Your task to perform on an android device: check the backup settings in the google photos Image 0: 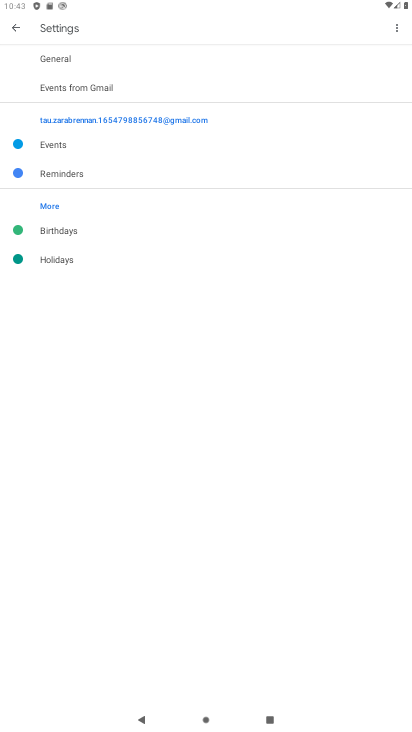
Step 0: press home button
Your task to perform on an android device: check the backup settings in the google photos Image 1: 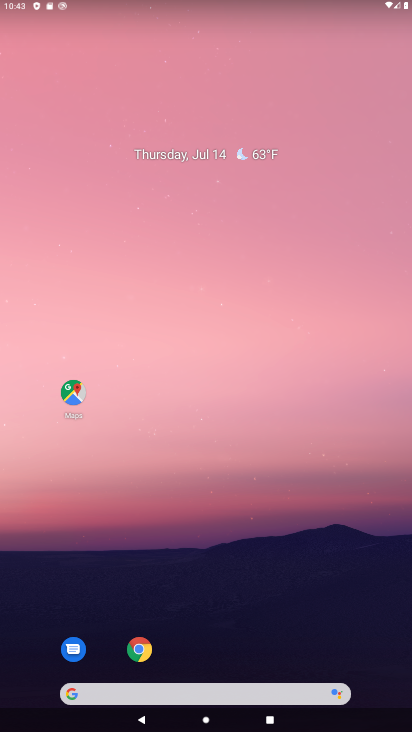
Step 1: drag from (318, 524) to (244, 87)
Your task to perform on an android device: check the backup settings in the google photos Image 2: 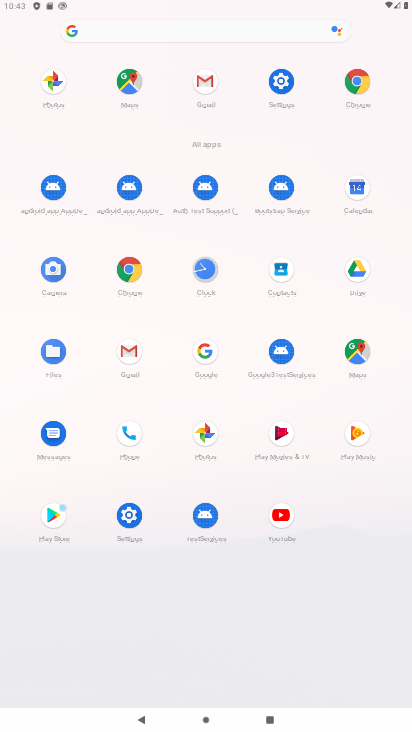
Step 2: click (217, 435)
Your task to perform on an android device: check the backup settings in the google photos Image 3: 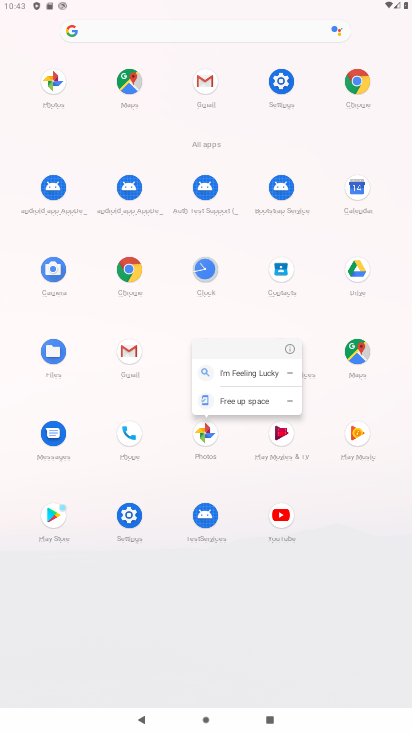
Step 3: click (202, 419)
Your task to perform on an android device: check the backup settings in the google photos Image 4: 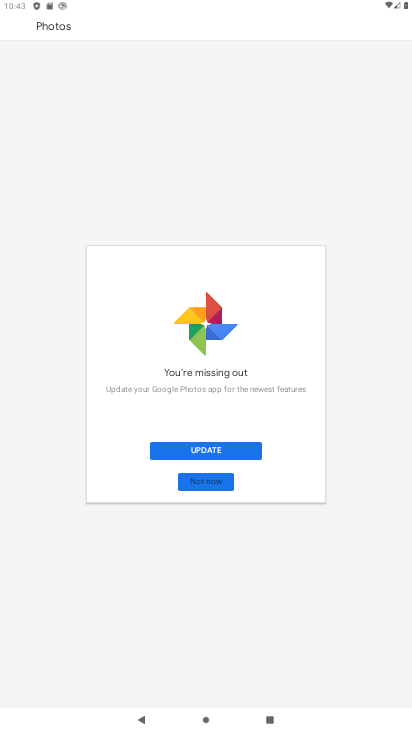
Step 4: click (207, 441)
Your task to perform on an android device: check the backup settings in the google photos Image 5: 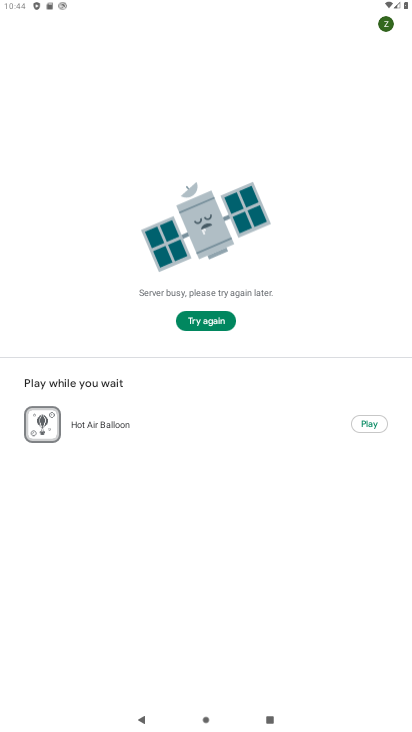
Step 5: click (206, 324)
Your task to perform on an android device: check the backup settings in the google photos Image 6: 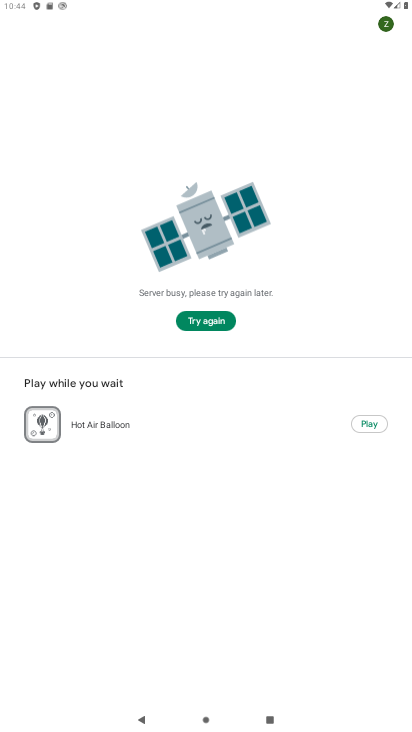
Step 6: task complete